Your task to perform on an android device: Show me recent news Image 0: 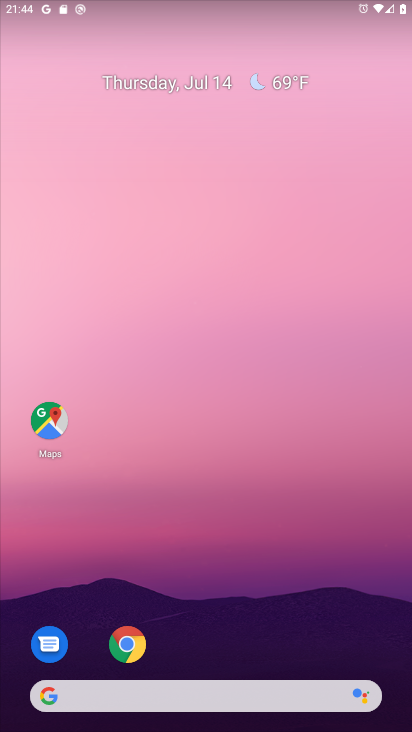
Step 0: click (105, 693)
Your task to perform on an android device: Show me recent news Image 1: 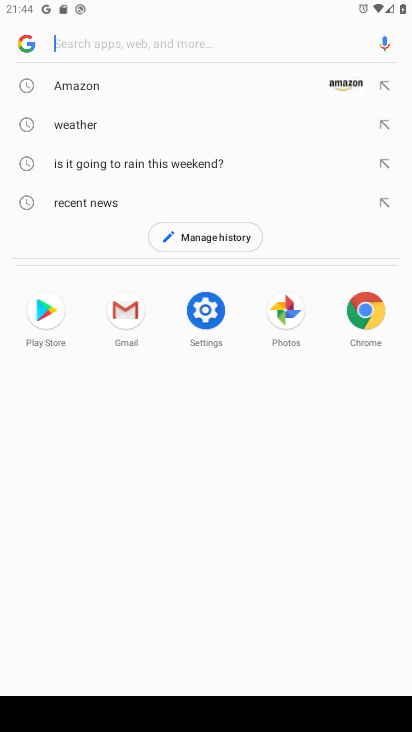
Step 1: click (26, 39)
Your task to perform on an android device: Show me recent news Image 2: 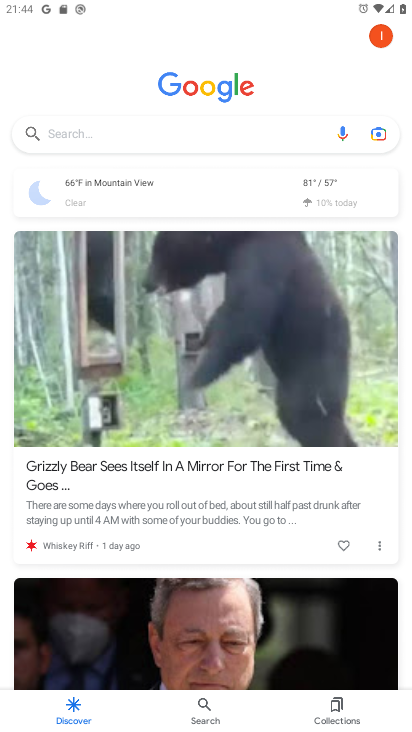
Step 2: task complete